Your task to perform on an android device: Go to Google Image 0: 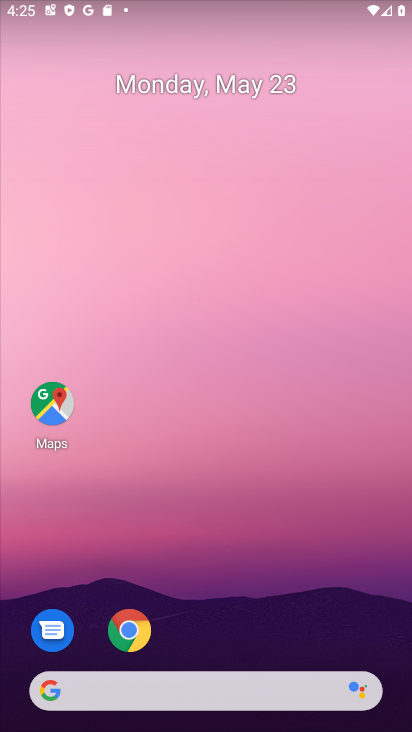
Step 0: press home button
Your task to perform on an android device: Go to Google Image 1: 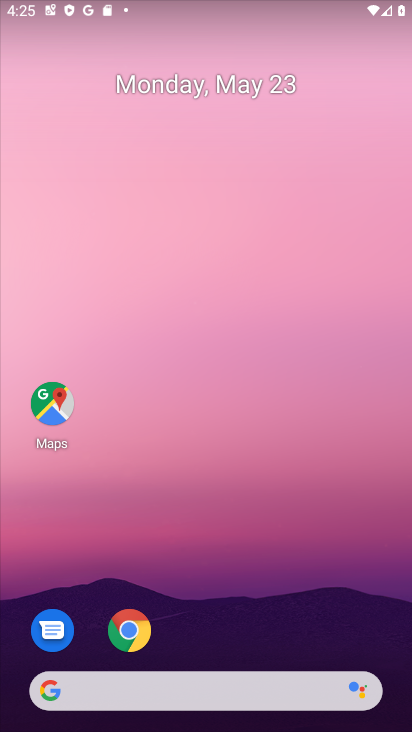
Step 1: drag from (203, 637) to (244, 105)
Your task to perform on an android device: Go to Google Image 2: 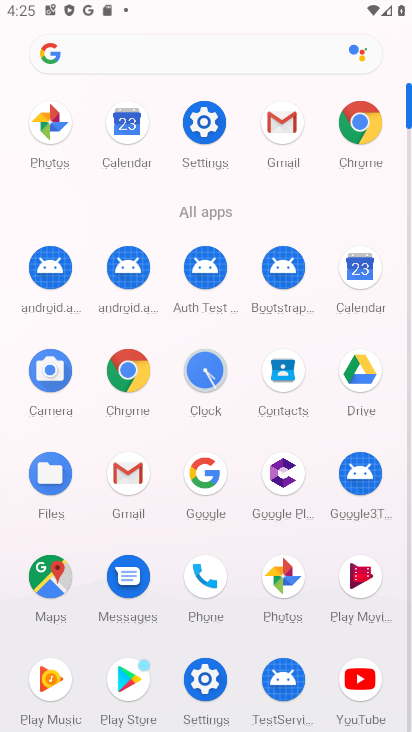
Step 2: click (207, 463)
Your task to perform on an android device: Go to Google Image 3: 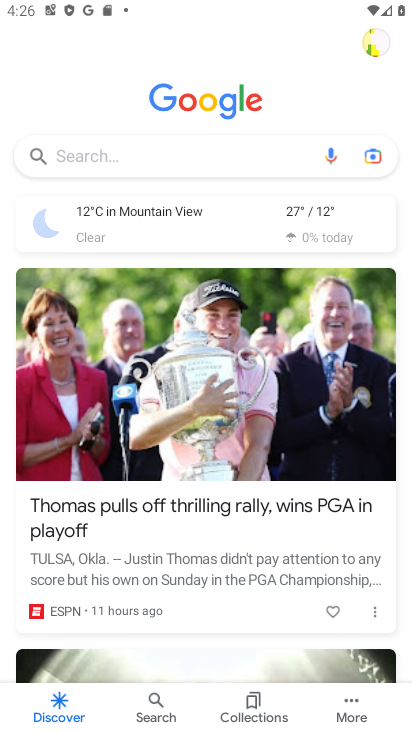
Step 3: task complete